Your task to perform on an android device: open app "Messages" (install if not already installed) Image 0: 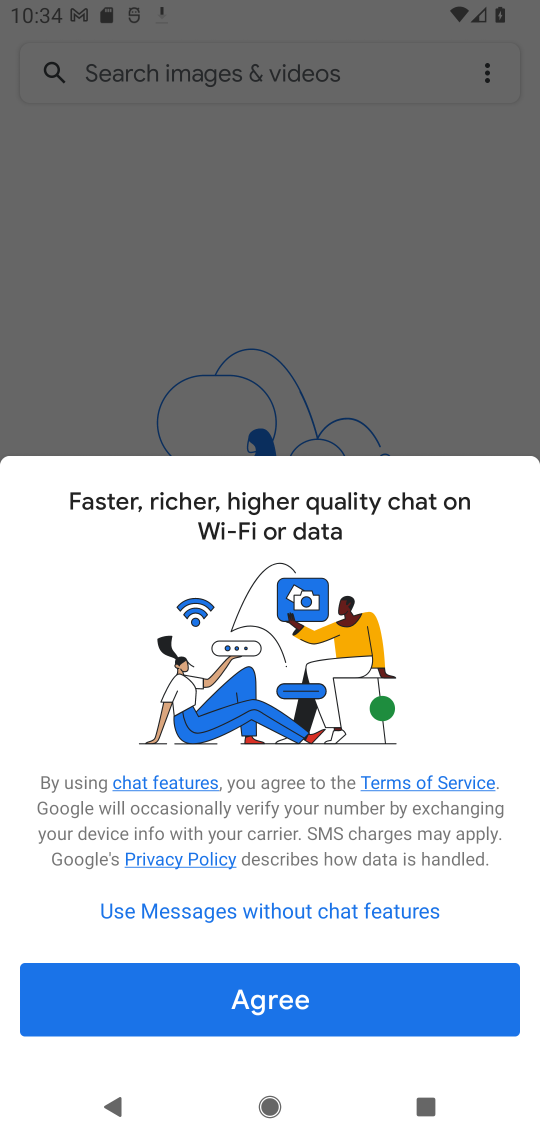
Step 0: press home button
Your task to perform on an android device: open app "Messages" (install if not already installed) Image 1: 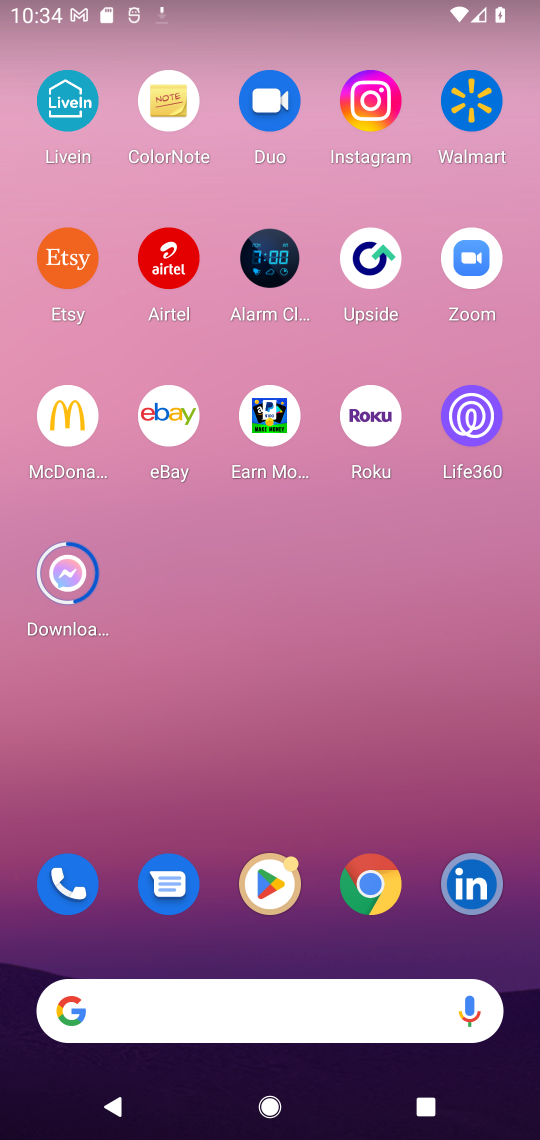
Step 1: click (282, 893)
Your task to perform on an android device: open app "Messages" (install if not already installed) Image 2: 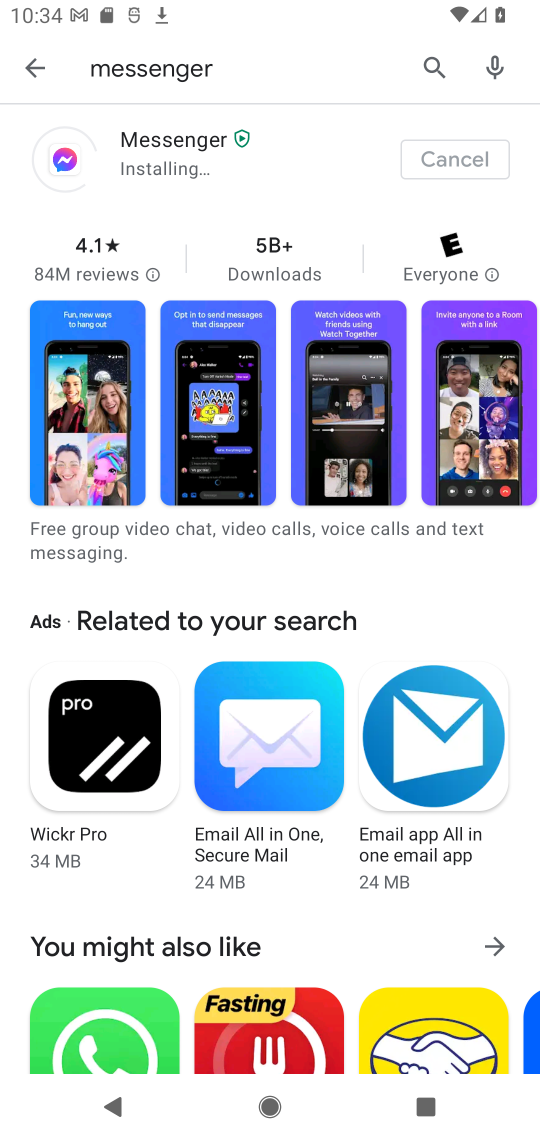
Step 2: click (415, 64)
Your task to perform on an android device: open app "Messages" (install if not already installed) Image 3: 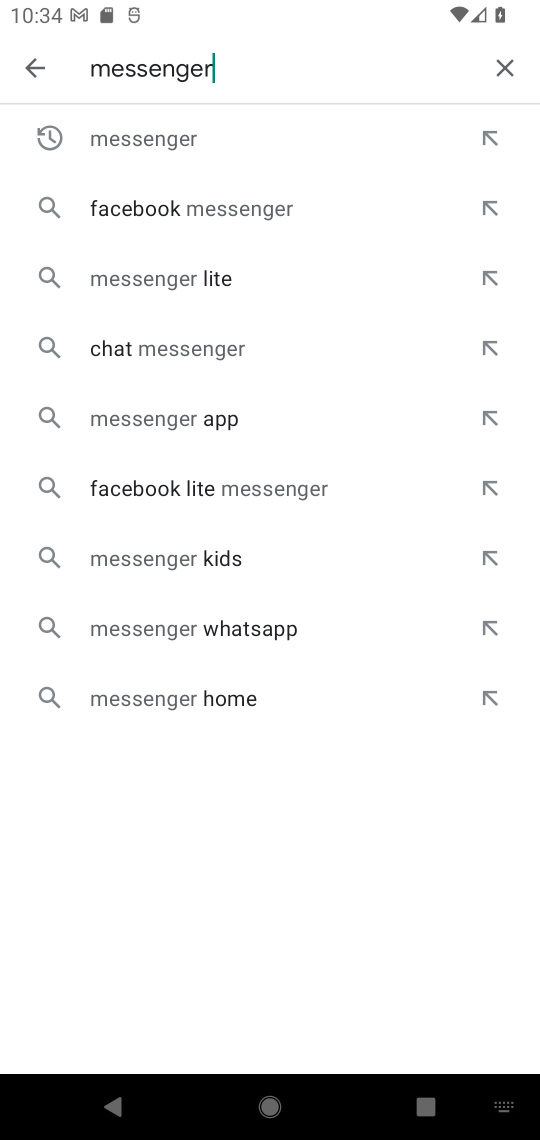
Step 3: press home button
Your task to perform on an android device: open app "Messages" (install if not already installed) Image 4: 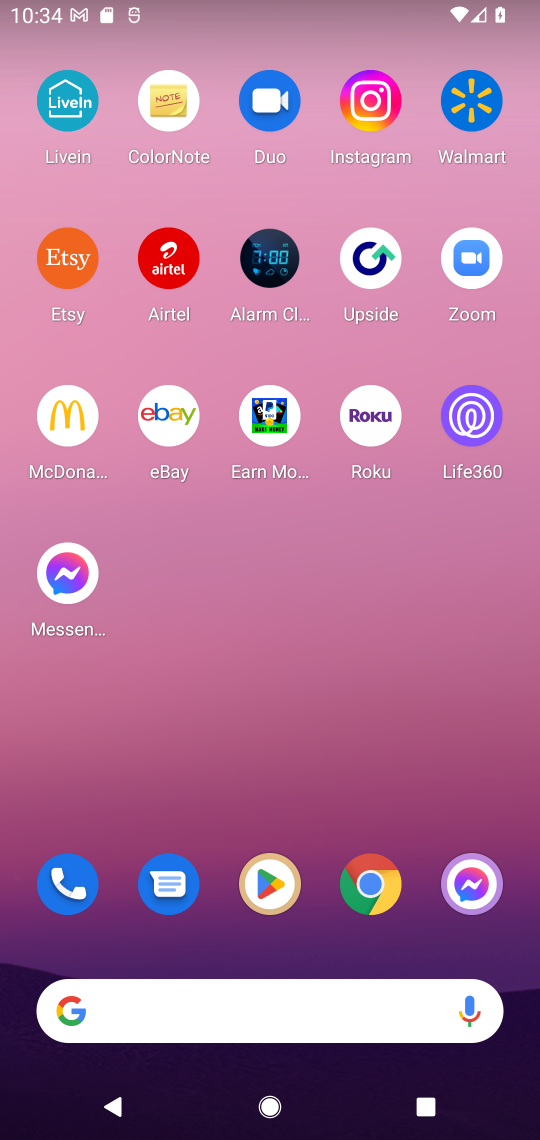
Step 4: click (78, 557)
Your task to perform on an android device: open app "Messages" (install if not already installed) Image 5: 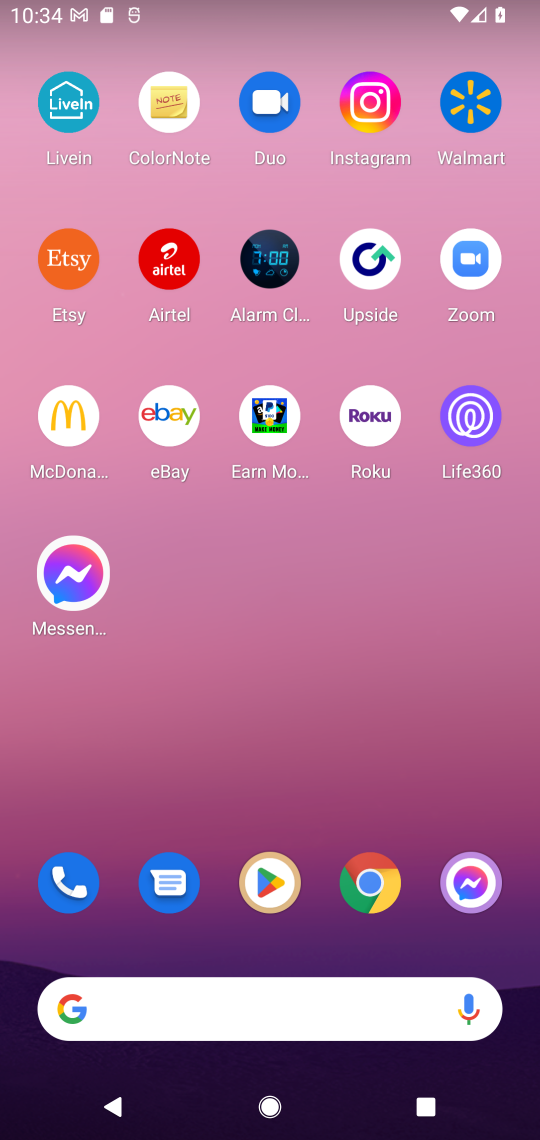
Step 5: task complete